Your task to perform on an android device: Go to notification settings Image 0: 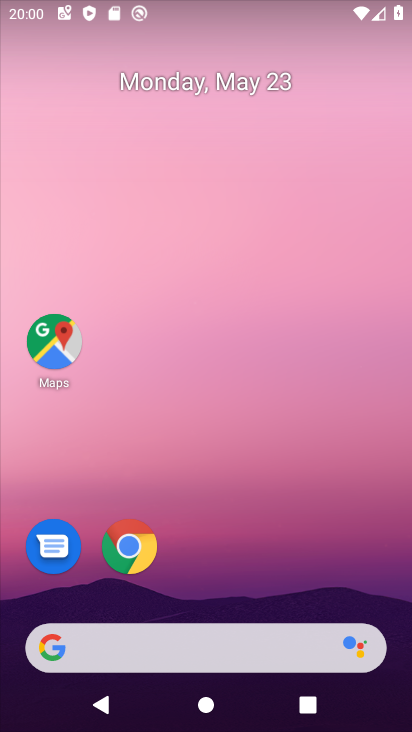
Step 0: drag from (392, 580) to (396, 106)
Your task to perform on an android device: Go to notification settings Image 1: 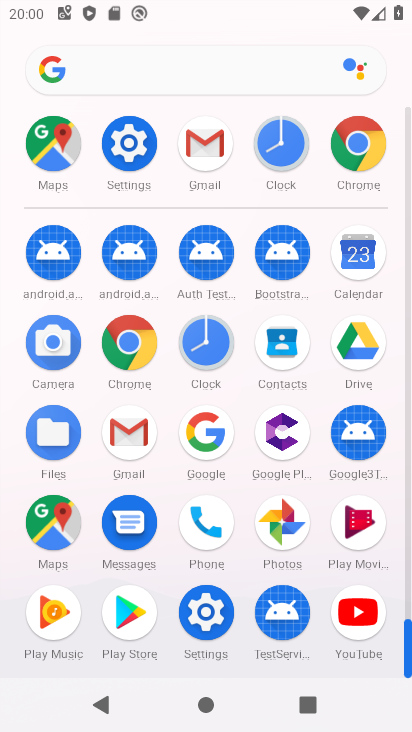
Step 1: click (227, 626)
Your task to perform on an android device: Go to notification settings Image 2: 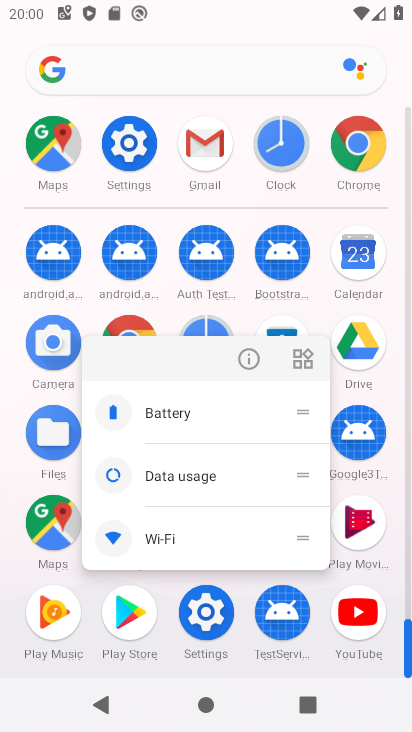
Step 2: click (227, 626)
Your task to perform on an android device: Go to notification settings Image 3: 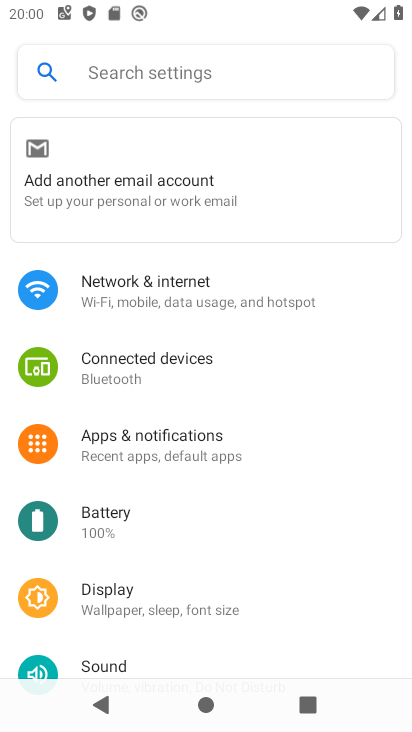
Step 3: drag from (329, 584) to (342, 462)
Your task to perform on an android device: Go to notification settings Image 4: 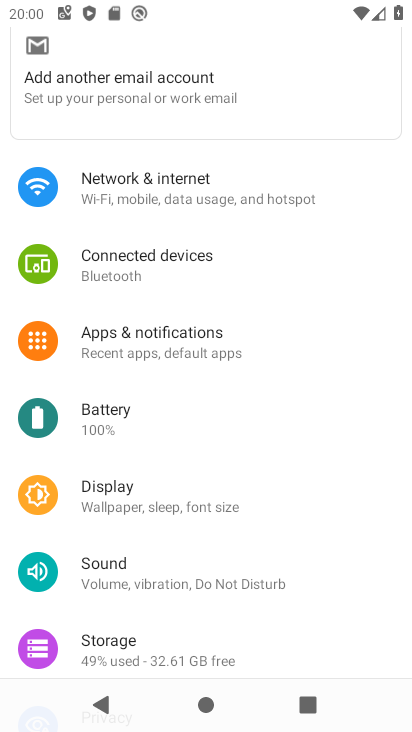
Step 4: drag from (355, 579) to (356, 468)
Your task to perform on an android device: Go to notification settings Image 5: 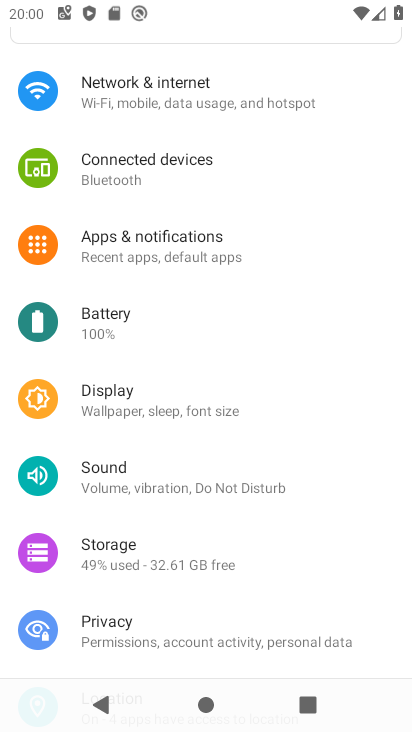
Step 5: drag from (327, 587) to (340, 480)
Your task to perform on an android device: Go to notification settings Image 6: 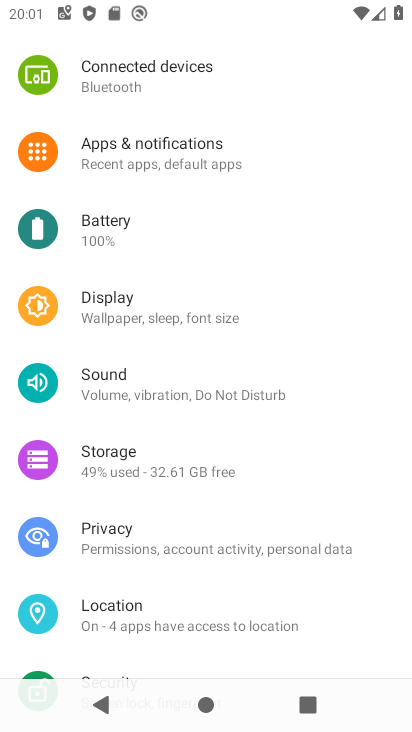
Step 6: drag from (343, 576) to (346, 454)
Your task to perform on an android device: Go to notification settings Image 7: 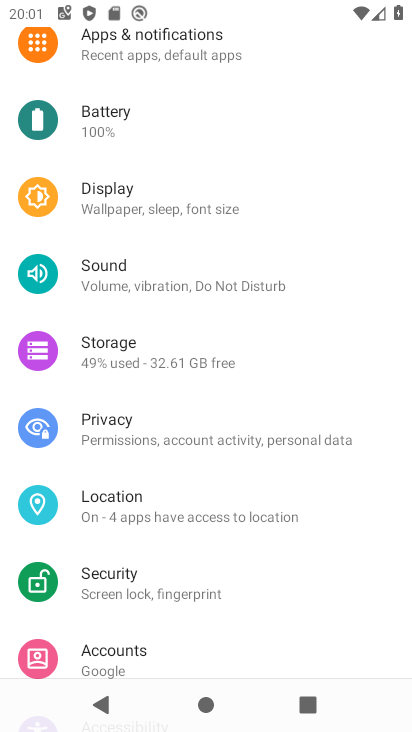
Step 7: drag from (345, 546) to (352, 407)
Your task to perform on an android device: Go to notification settings Image 8: 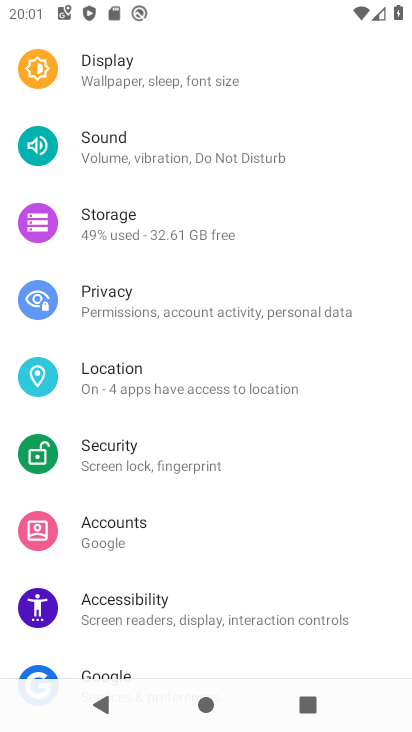
Step 8: drag from (371, 523) to (373, 441)
Your task to perform on an android device: Go to notification settings Image 9: 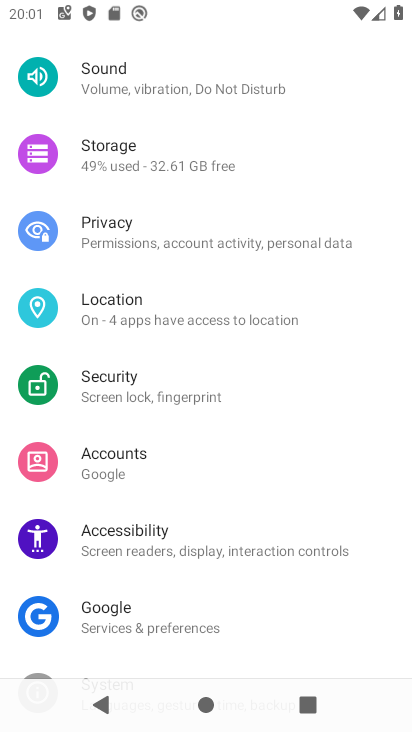
Step 9: drag from (352, 554) to (358, 412)
Your task to perform on an android device: Go to notification settings Image 10: 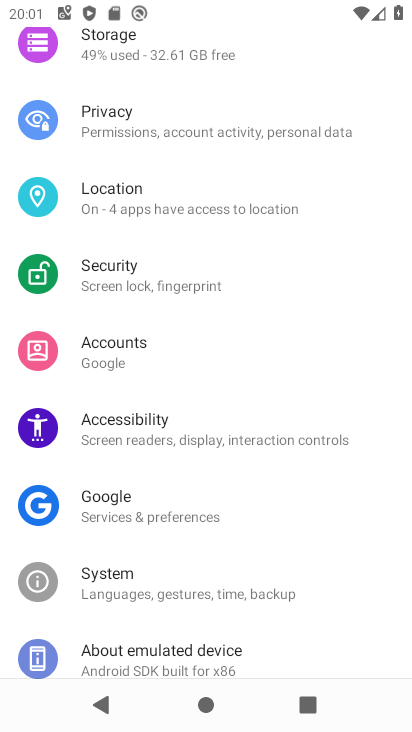
Step 10: drag from (368, 315) to (367, 454)
Your task to perform on an android device: Go to notification settings Image 11: 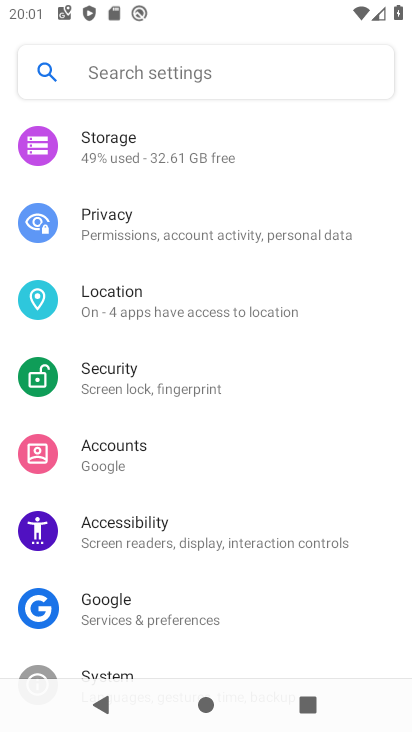
Step 11: drag from (368, 289) to (353, 433)
Your task to perform on an android device: Go to notification settings Image 12: 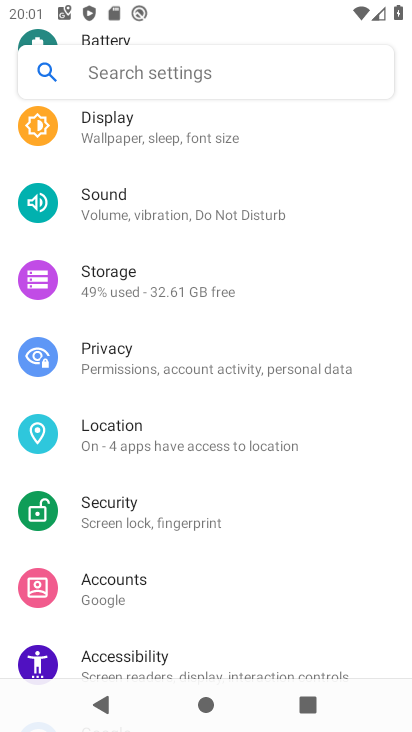
Step 12: drag from (369, 267) to (372, 412)
Your task to perform on an android device: Go to notification settings Image 13: 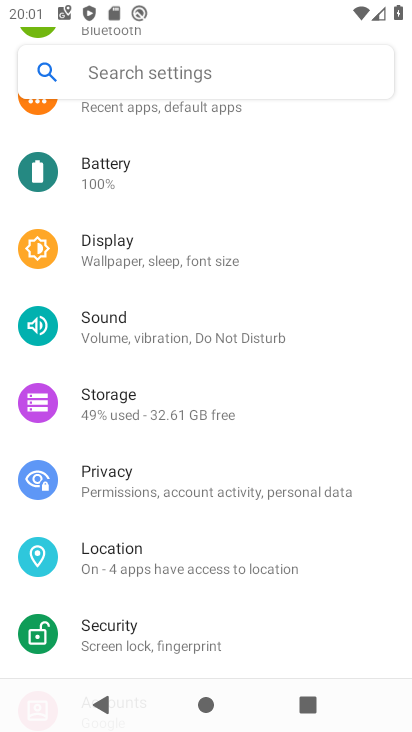
Step 13: drag from (373, 277) to (375, 411)
Your task to perform on an android device: Go to notification settings Image 14: 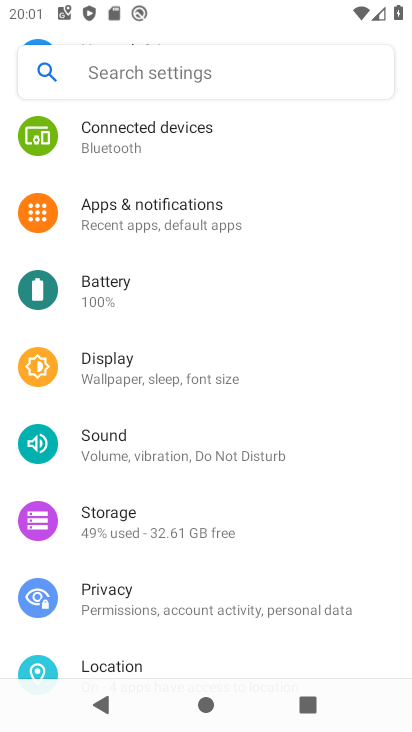
Step 14: drag from (354, 270) to (353, 366)
Your task to perform on an android device: Go to notification settings Image 15: 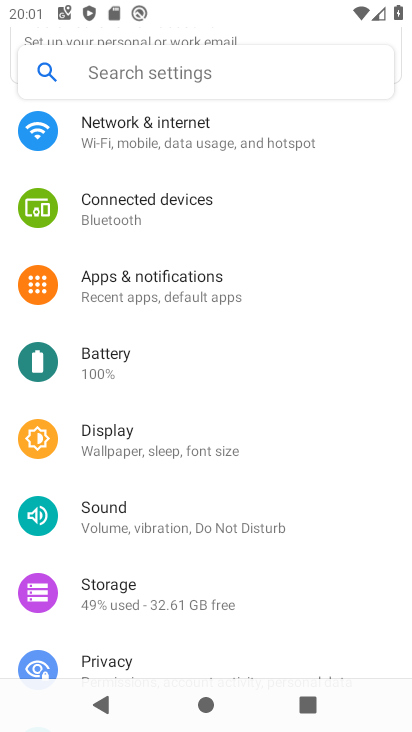
Step 15: drag from (359, 227) to (339, 350)
Your task to perform on an android device: Go to notification settings Image 16: 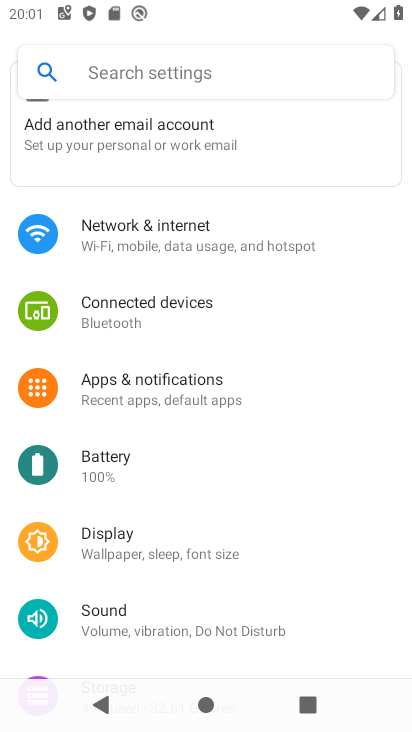
Step 16: drag from (338, 201) to (340, 360)
Your task to perform on an android device: Go to notification settings Image 17: 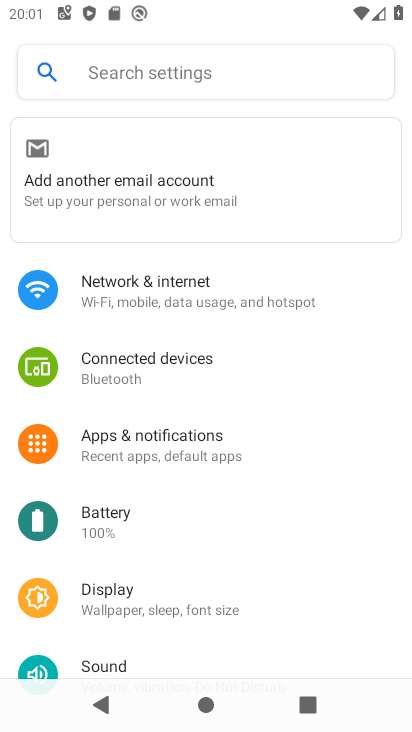
Step 17: click (240, 468)
Your task to perform on an android device: Go to notification settings Image 18: 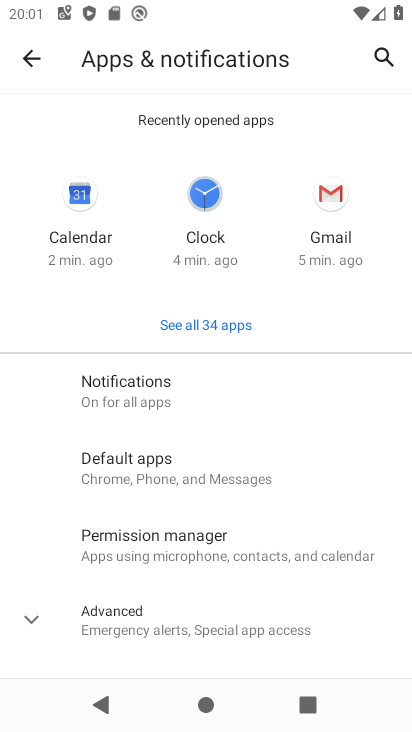
Step 18: click (175, 411)
Your task to perform on an android device: Go to notification settings Image 19: 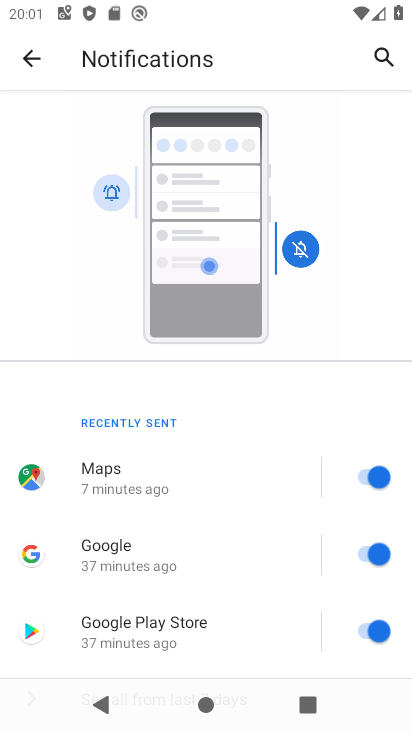
Step 19: task complete